Your task to perform on an android device: toggle airplane mode Image 0: 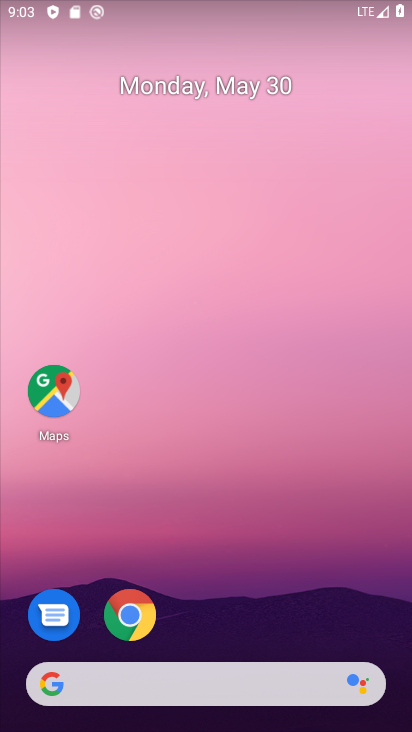
Step 0: drag from (234, 3) to (225, 593)
Your task to perform on an android device: toggle airplane mode Image 1: 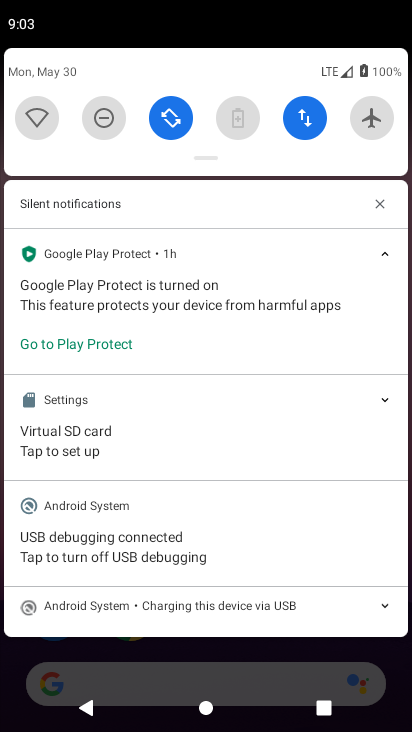
Step 1: click (376, 121)
Your task to perform on an android device: toggle airplane mode Image 2: 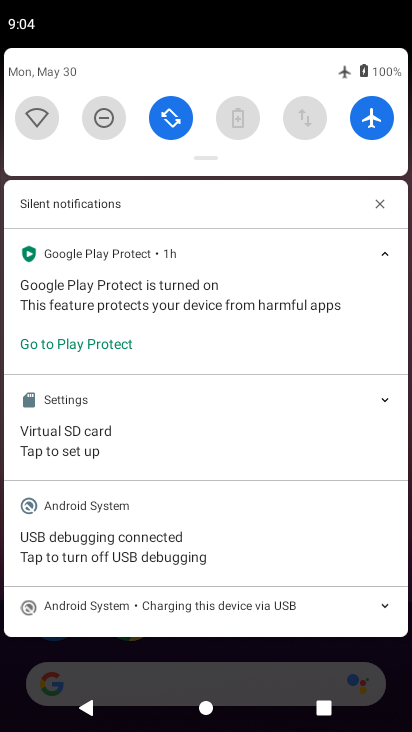
Step 2: task complete